Your task to perform on an android device: open a new tab in the chrome app Image 0: 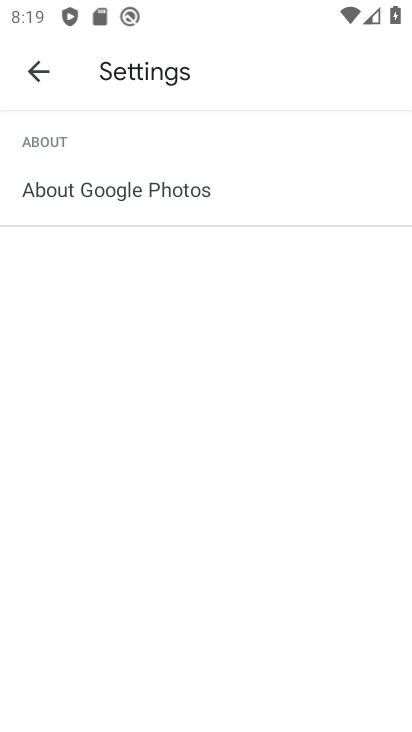
Step 0: press home button
Your task to perform on an android device: open a new tab in the chrome app Image 1: 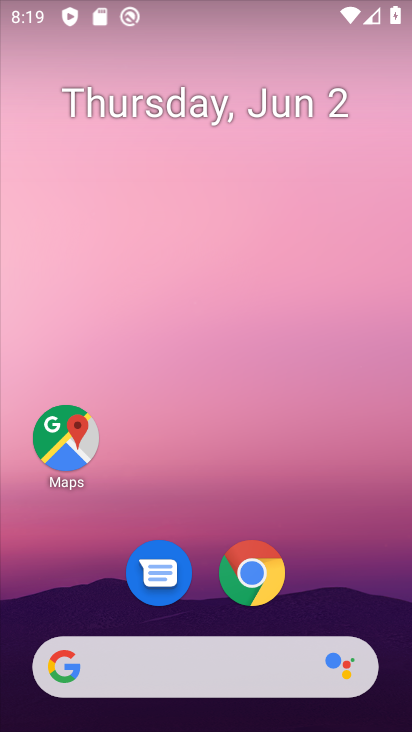
Step 1: click (275, 575)
Your task to perform on an android device: open a new tab in the chrome app Image 2: 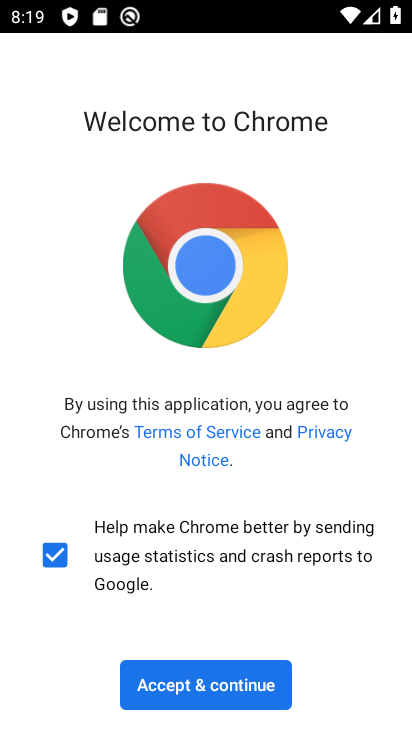
Step 2: click (234, 686)
Your task to perform on an android device: open a new tab in the chrome app Image 3: 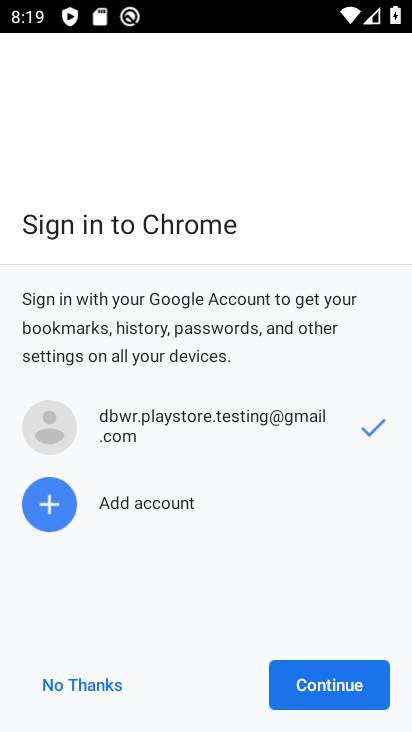
Step 3: click (349, 680)
Your task to perform on an android device: open a new tab in the chrome app Image 4: 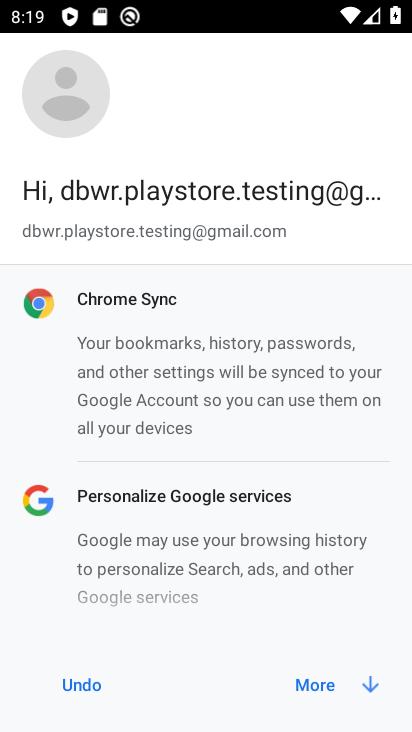
Step 4: click (349, 680)
Your task to perform on an android device: open a new tab in the chrome app Image 5: 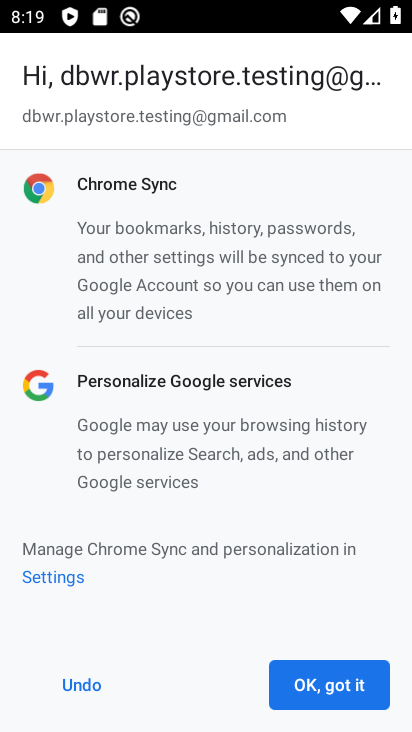
Step 5: click (349, 680)
Your task to perform on an android device: open a new tab in the chrome app Image 6: 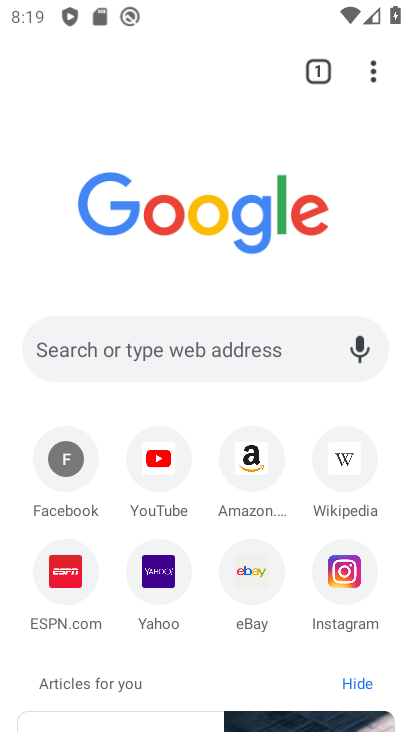
Step 6: task complete